Your task to perform on an android device: star an email in the gmail app Image 0: 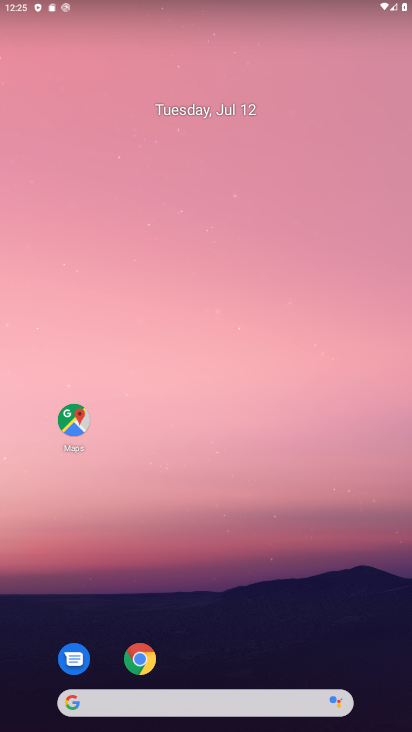
Step 0: drag from (271, 731) to (213, 65)
Your task to perform on an android device: star an email in the gmail app Image 1: 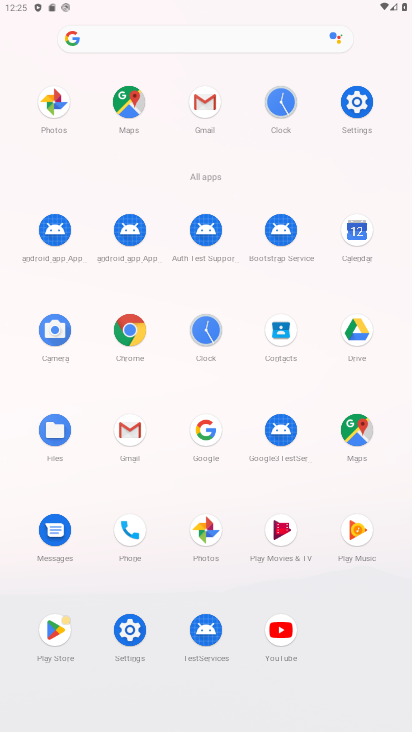
Step 1: click (133, 436)
Your task to perform on an android device: star an email in the gmail app Image 2: 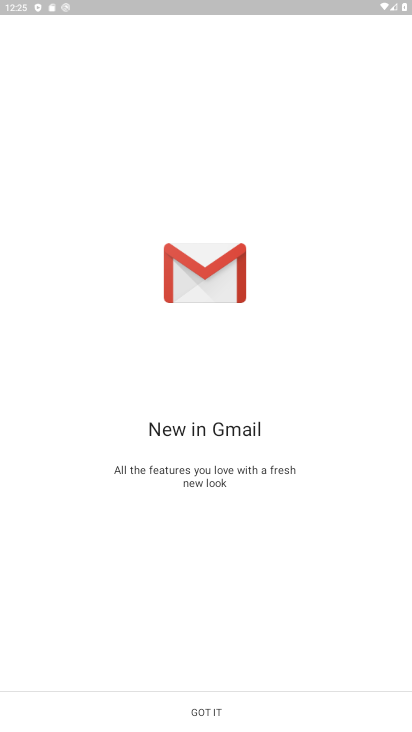
Step 2: click (194, 710)
Your task to perform on an android device: star an email in the gmail app Image 3: 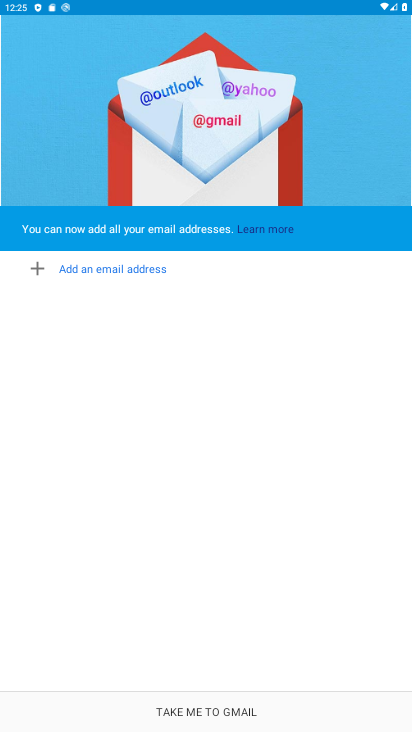
Step 3: click (196, 710)
Your task to perform on an android device: star an email in the gmail app Image 4: 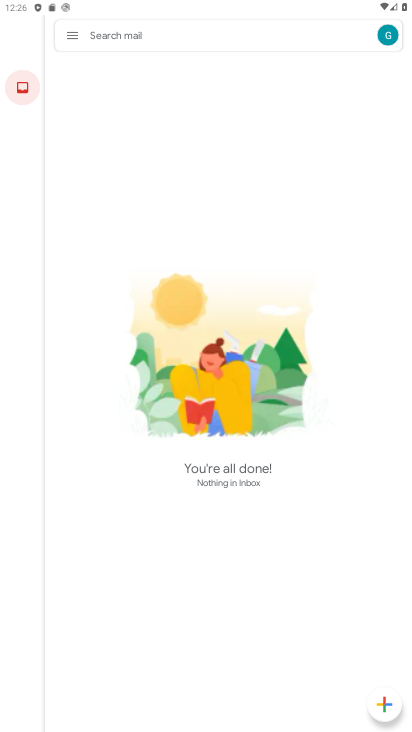
Step 4: task complete